Your task to perform on an android device: What's the weather going to be this weekend? Image 0: 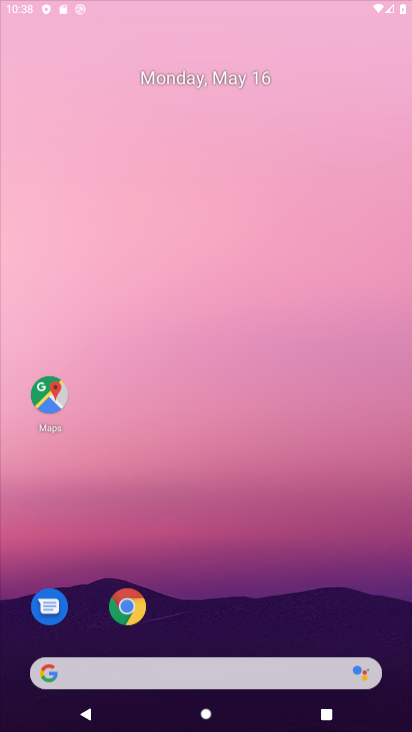
Step 0: press home button
Your task to perform on an android device: What's the weather going to be this weekend? Image 1: 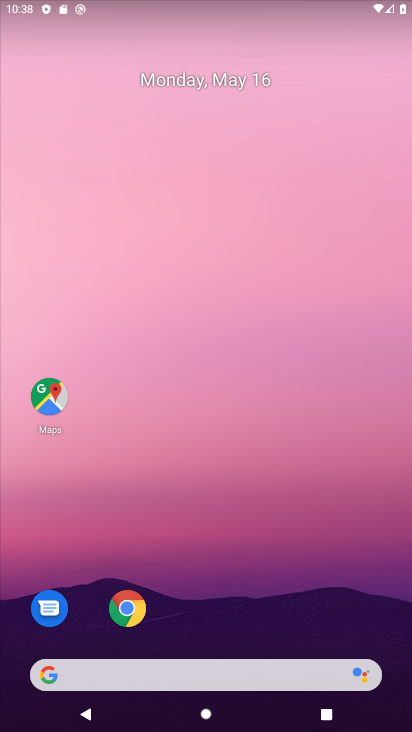
Step 1: drag from (291, 603) to (289, 215)
Your task to perform on an android device: What's the weather going to be this weekend? Image 2: 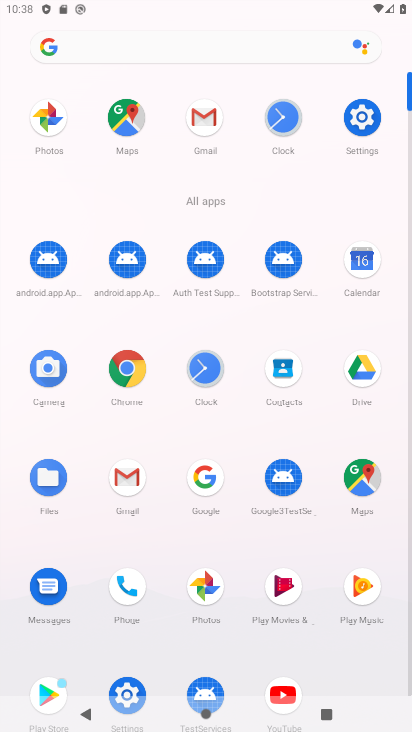
Step 2: click (129, 375)
Your task to perform on an android device: What's the weather going to be this weekend? Image 3: 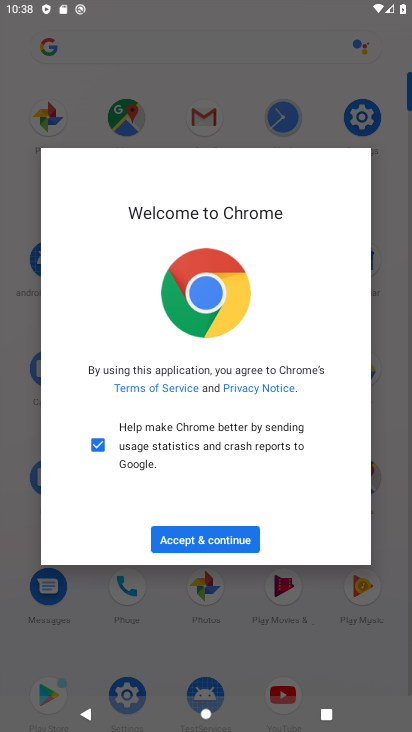
Step 3: click (174, 534)
Your task to perform on an android device: What's the weather going to be this weekend? Image 4: 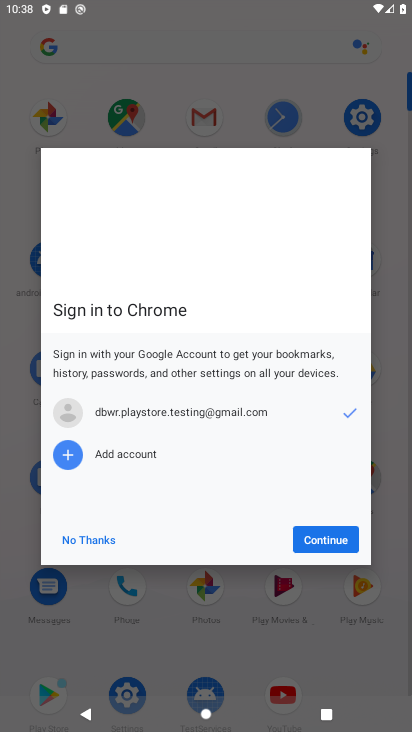
Step 4: click (323, 543)
Your task to perform on an android device: What's the weather going to be this weekend? Image 5: 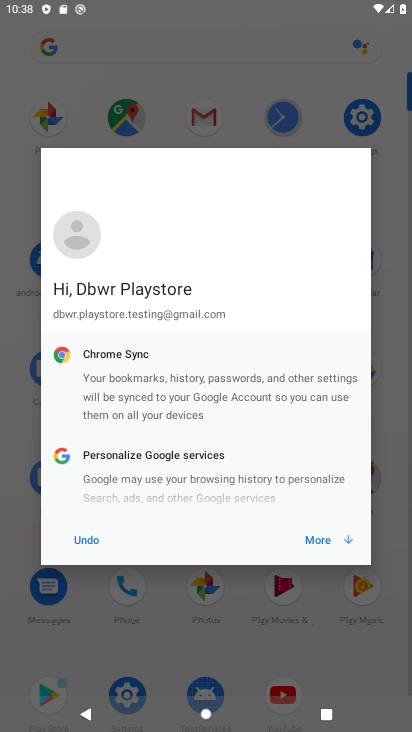
Step 5: click (325, 543)
Your task to perform on an android device: What's the weather going to be this weekend? Image 6: 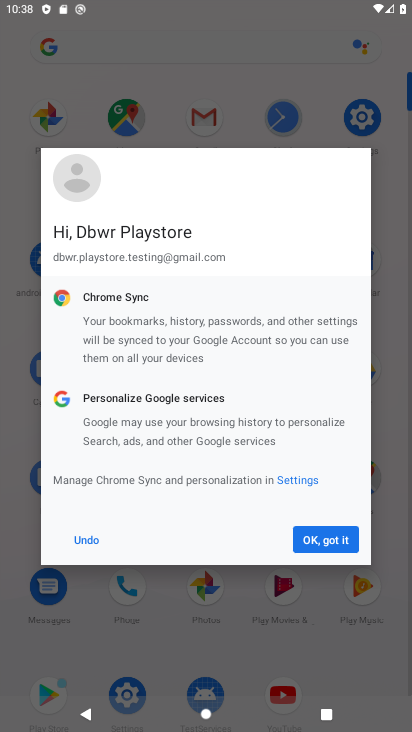
Step 6: click (326, 544)
Your task to perform on an android device: What's the weather going to be this weekend? Image 7: 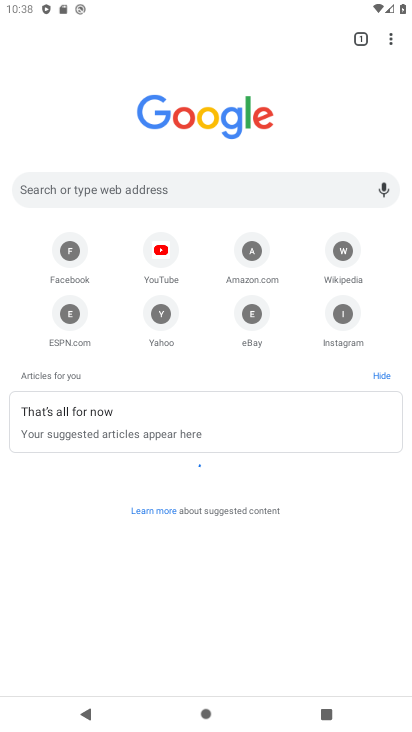
Step 7: click (185, 200)
Your task to perform on an android device: What's the weather going to be this weekend? Image 8: 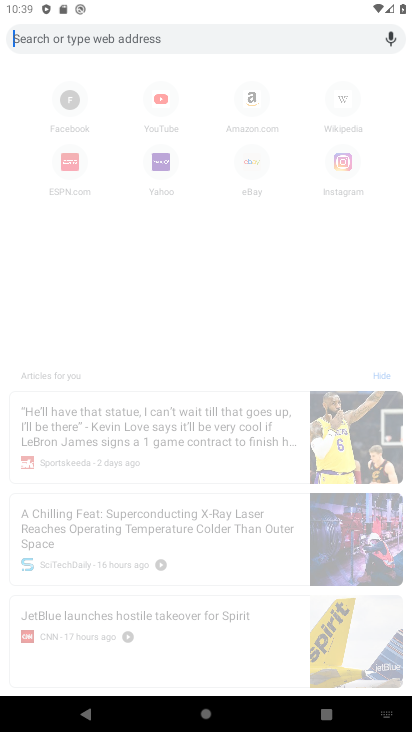
Step 8: type "what's the weather going to be this weekend"
Your task to perform on an android device: What's the weather going to be this weekend? Image 9: 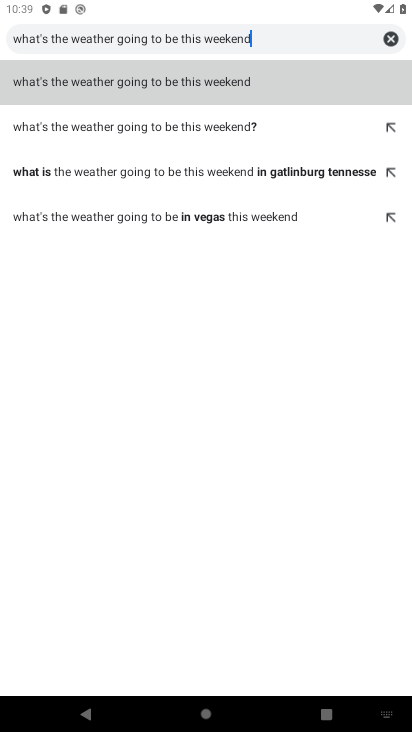
Step 9: click (176, 83)
Your task to perform on an android device: What's the weather going to be this weekend? Image 10: 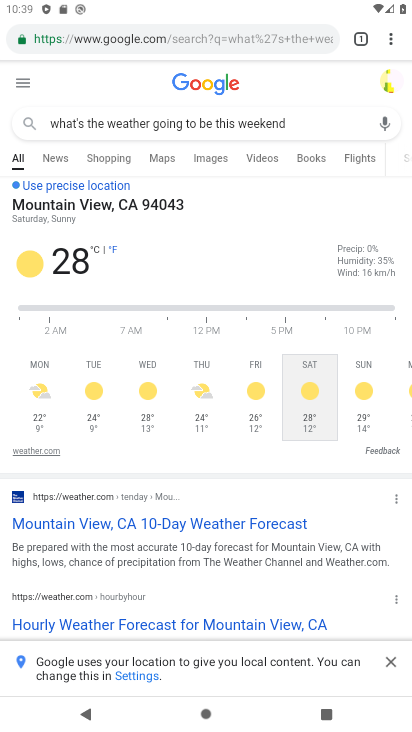
Step 10: task complete